Your task to perform on an android device: toggle translation in the chrome app Image 0: 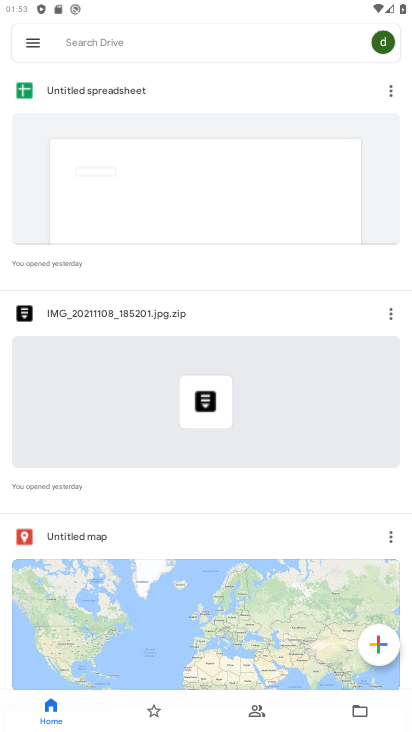
Step 0: press home button
Your task to perform on an android device: toggle translation in the chrome app Image 1: 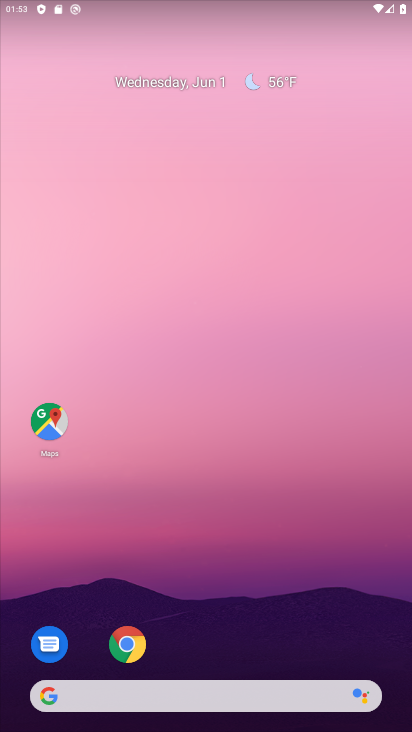
Step 1: click (131, 647)
Your task to perform on an android device: toggle translation in the chrome app Image 2: 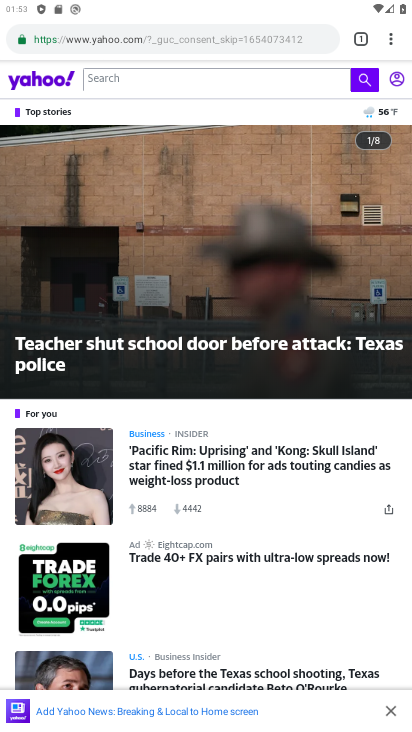
Step 2: click (384, 44)
Your task to perform on an android device: toggle translation in the chrome app Image 3: 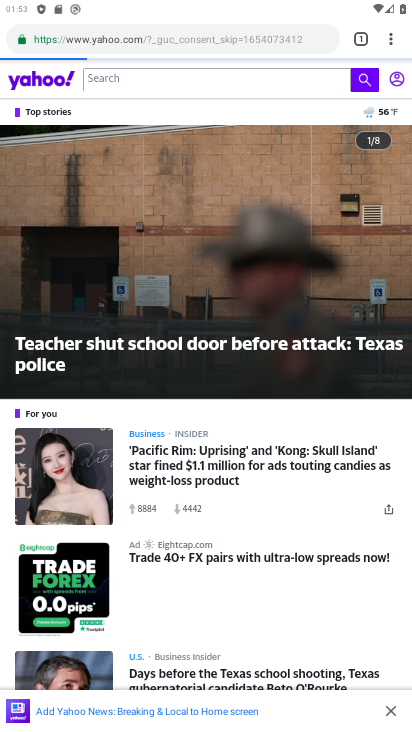
Step 3: click (390, 48)
Your task to perform on an android device: toggle translation in the chrome app Image 4: 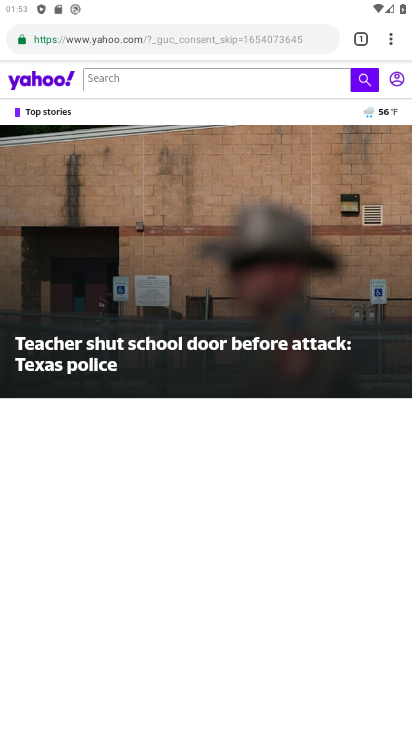
Step 4: click (385, 41)
Your task to perform on an android device: toggle translation in the chrome app Image 5: 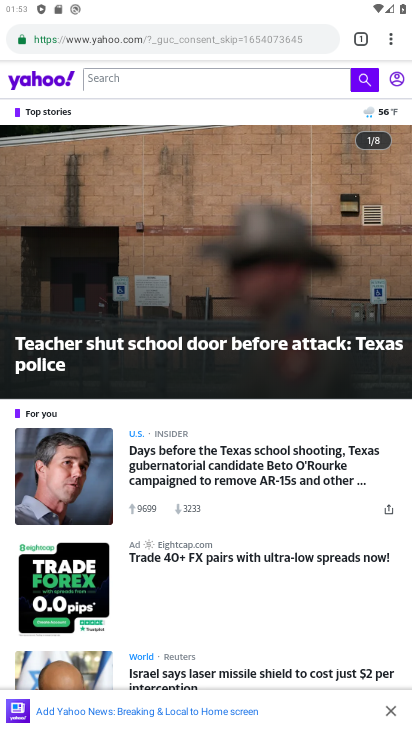
Step 5: click (397, 41)
Your task to perform on an android device: toggle translation in the chrome app Image 6: 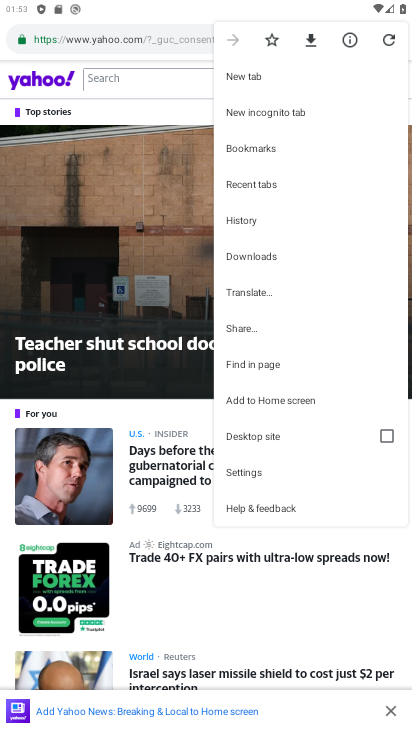
Step 6: click (244, 475)
Your task to perform on an android device: toggle translation in the chrome app Image 7: 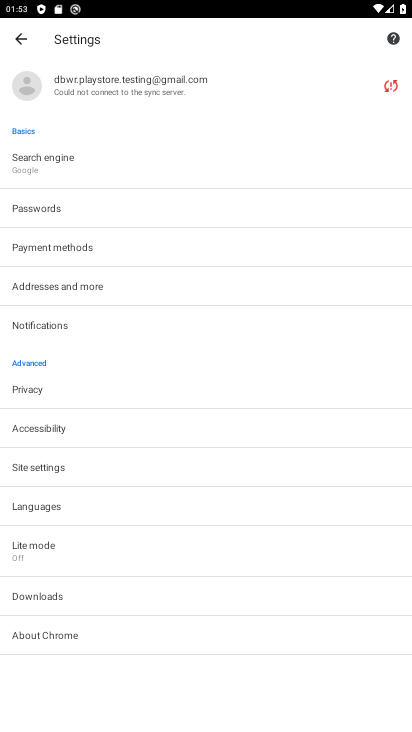
Step 7: click (51, 510)
Your task to perform on an android device: toggle translation in the chrome app Image 8: 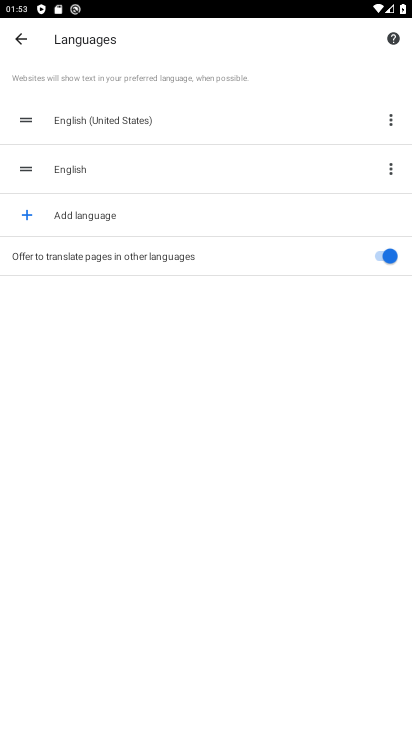
Step 8: click (381, 251)
Your task to perform on an android device: toggle translation in the chrome app Image 9: 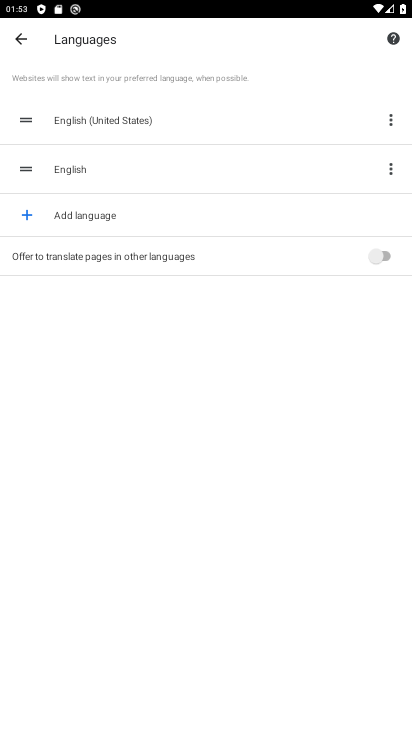
Step 9: task complete